Your task to perform on an android device: toggle data saver in the chrome app Image 0: 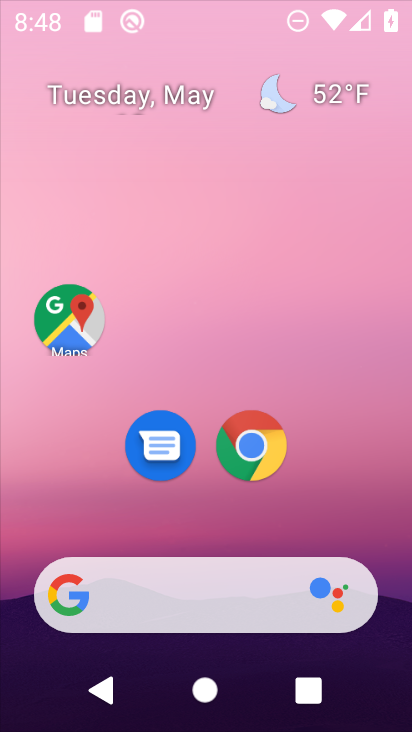
Step 0: drag from (313, 541) to (310, 289)
Your task to perform on an android device: toggle data saver in the chrome app Image 1: 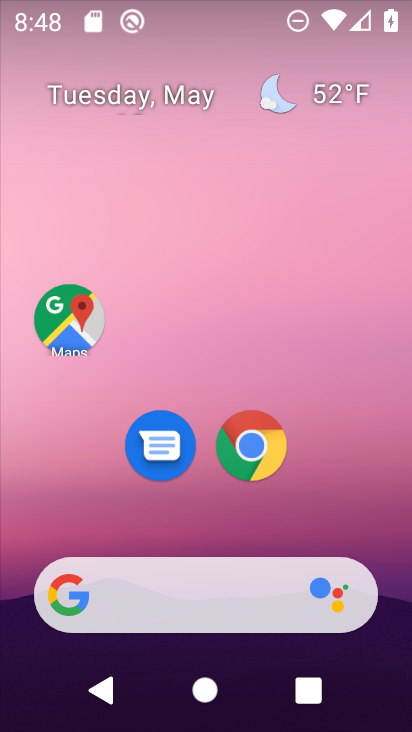
Step 1: drag from (330, 499) to (300, 219)
Your task to perform on an android device: toggle data saver in the chrome app Image 2: 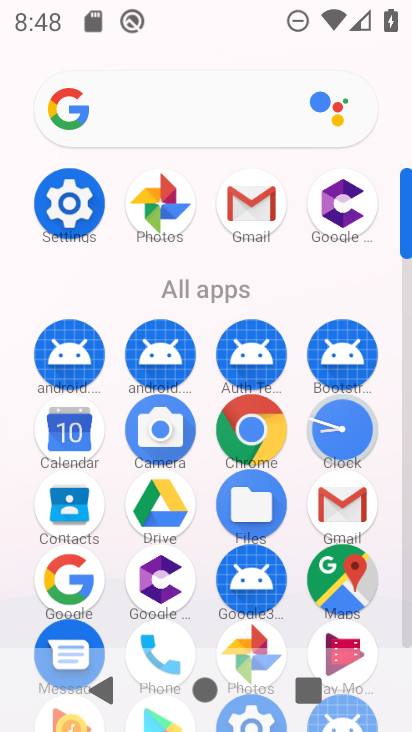
Step 2: click (242, 436)
Your task to perform on an android device: toggle data saver in the chrome app Image 3: 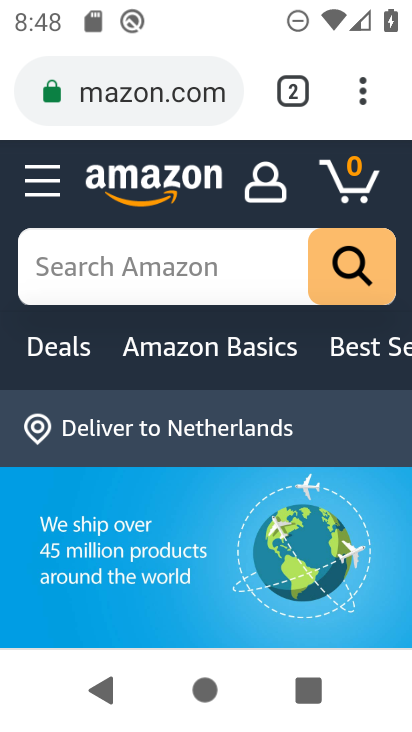
Step 3: click (364, 95)
Your task to perform on an android device: toggle data saver in the chrome app Image 4: 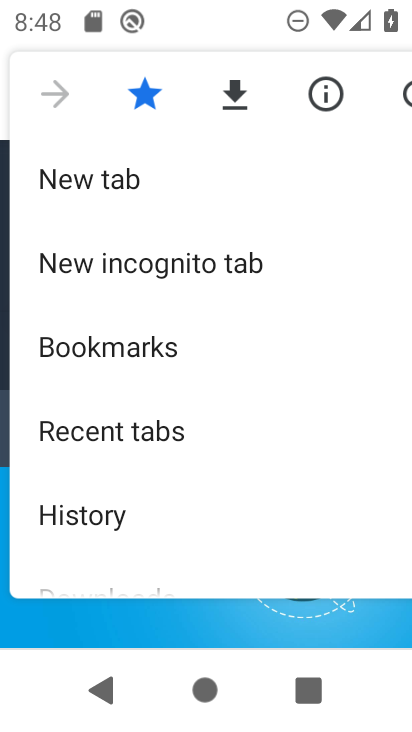
Step 4: drag from (249, 479) to (242, 157)
Your task to perform on an android device: toggle data saver in the chrome app Image 5: 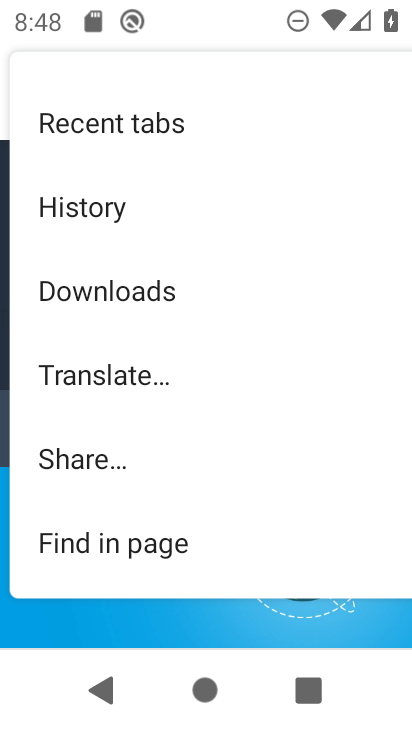
Step 5: drag from (179, 502) to (189, 174)
Your task to perform on an android device: toggle data saver in the chrome app Image 6: 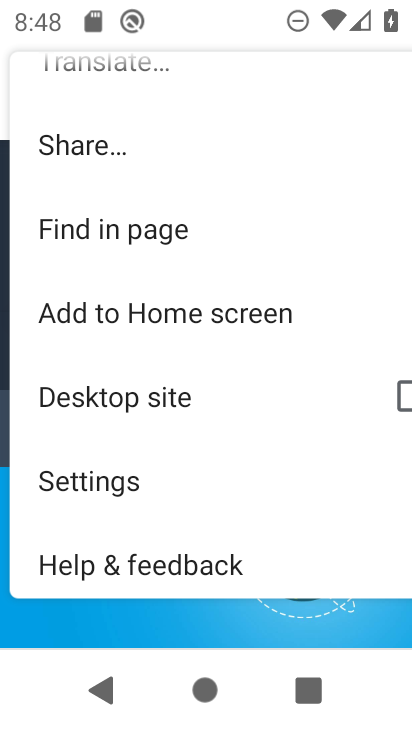
Step 6: click (129, 484)
Your task to perform on an android device: toggle data saver in the chrome app Image 7: 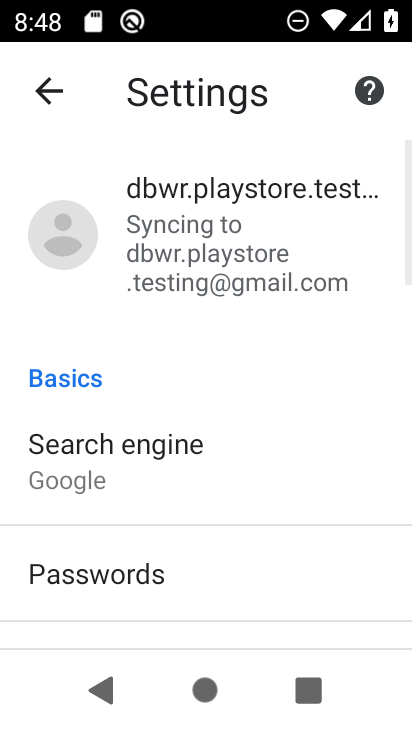
Step 7: drag from (176, 574) to (243, 251)
Your task to perform on an android device: toggle data saver in the chrome app Image 8: 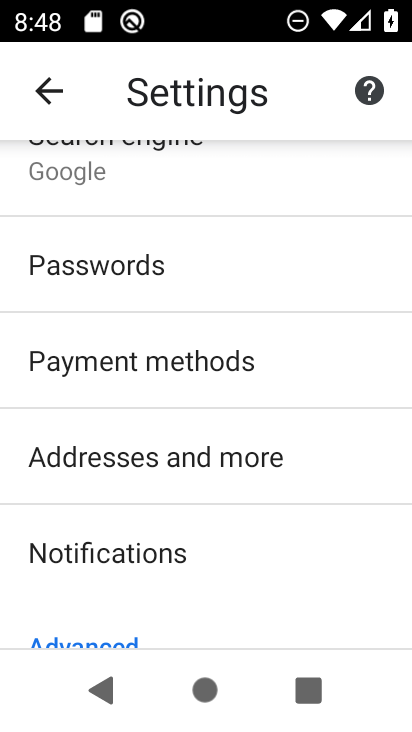
Step 8: drag from (234, 540) to (268, 236)
Your task to perform on an android device: toggle data saver in the chrome app Image 9: 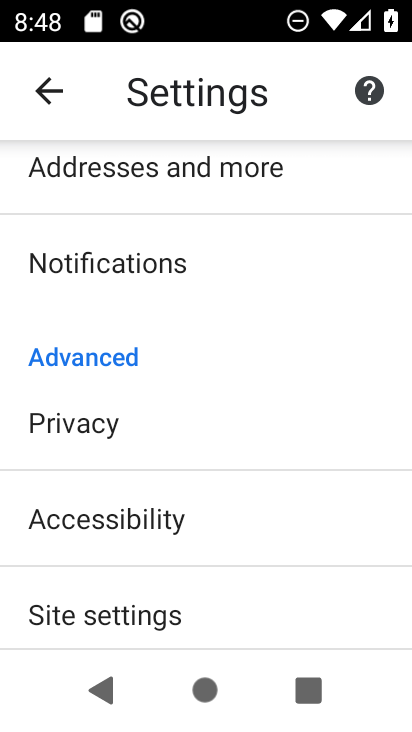
Step 9: drag from (202, 582) to (253, 305)
Your task to perform on an android device: toggle data saver in the chrome app Image 10: 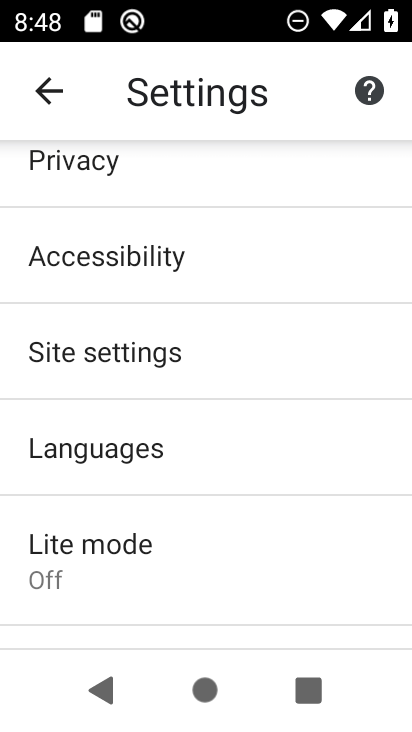
Step 10: drag from (213, 513) to (245, 283)
Your task to perform on an android device: toggle data saver in the chrome app Image 11: 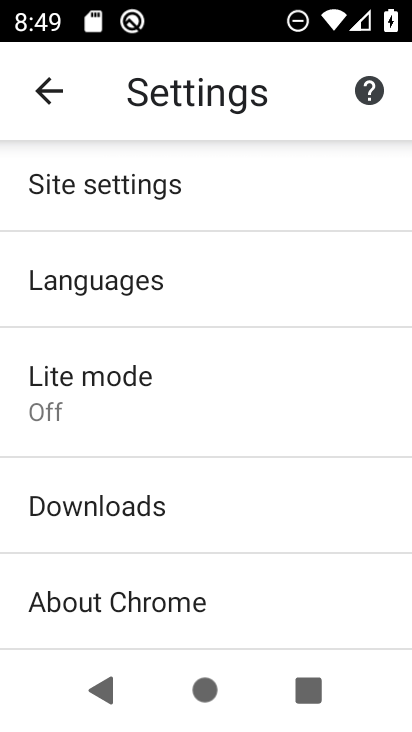
Step 11: drag from (175, 518) to (206, 264)
Your task to perform on an android device: toggle data saver in the chrome app Image 12: 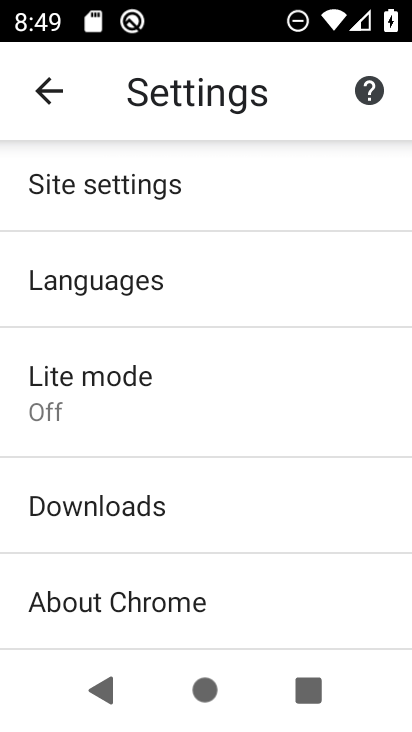
Step 12: drag from (175, 498) to (229, 295)
Your task to perform on an android device: toggle data saver in the chrome app Image 13: 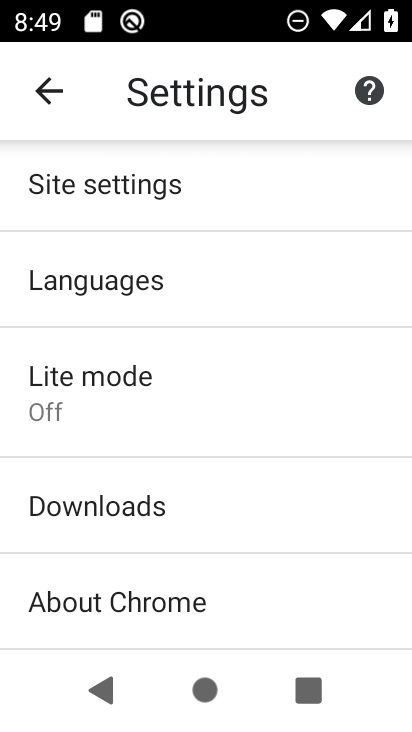
Step 13: drag from (181, 321) to (178, 510)
Your task to perform on an android device: toggle data saver in the chrome app Image 14: 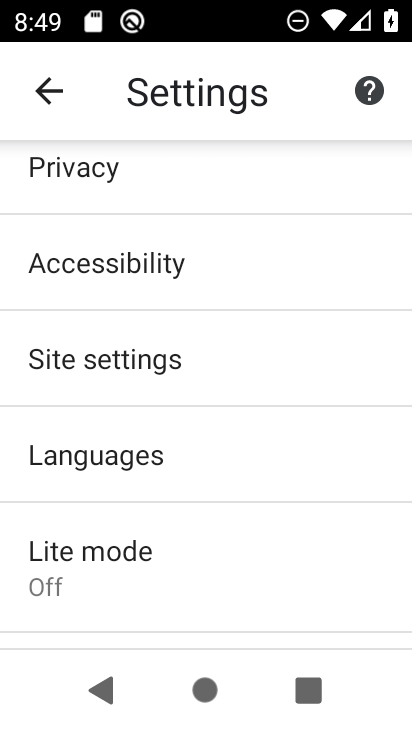
Step 14: click (114, 567)
Your task to perform on an android device: toggle data saver in the chrome app Image 15: 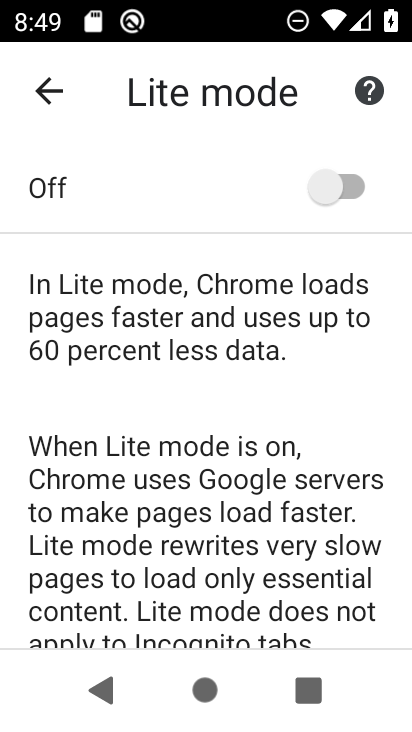
Step 15: click (353, 181)
Your task to perform on an android device: toggle data saver in the chrome app Image 16: 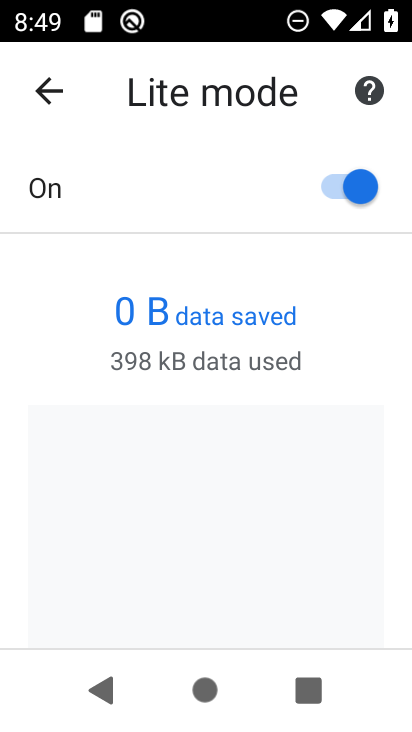
Step 16: task complete